Your task to perform on an android device: stop showing notifications on the lock screen Image 0: 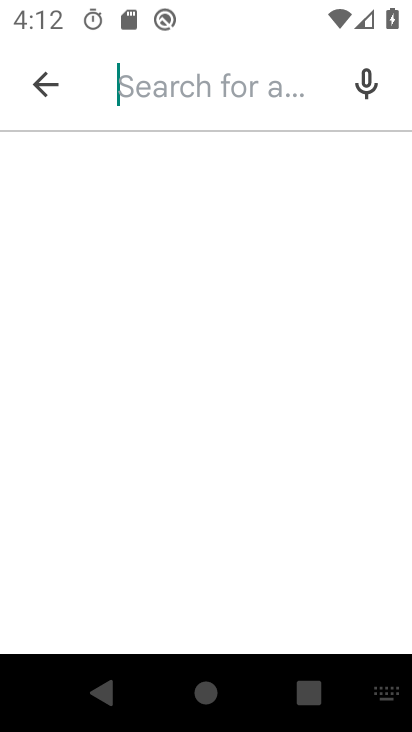
Step 0: press home button
Your task to perform on an android device: stop showing notifications on the lock screen Image 1: 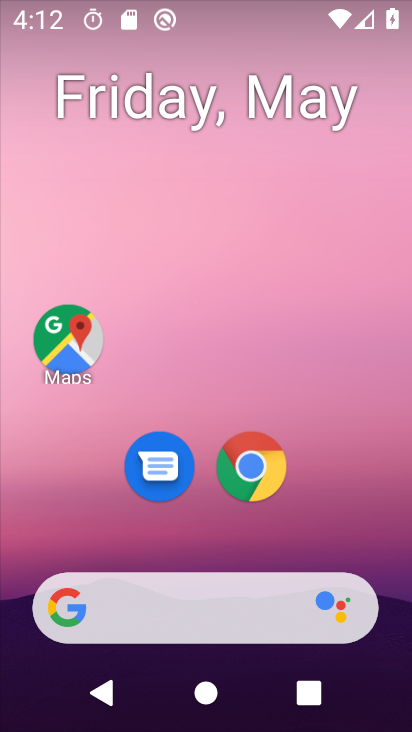
Step 1: drag from (392, 694) to (351, 196)
Your task to perform on an android device: stop showing notifications on the lock screen Image 2: 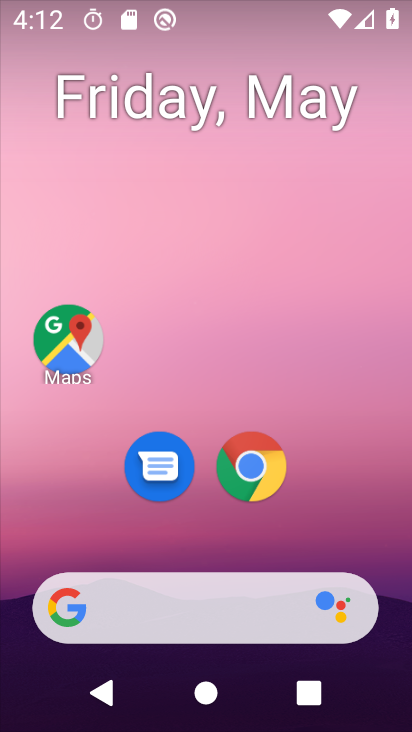
Step 2: drag from (389, 661) to (372, 166)
Your task to perform on an android device: stop showing notifications on the lock screen Image 3: 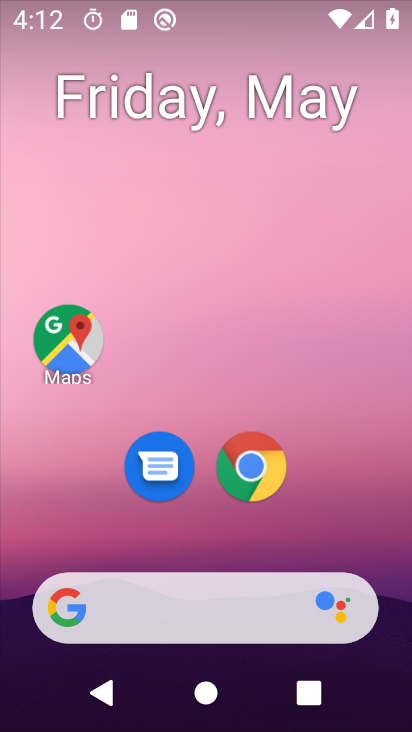
Step 3: drag from (386, 662) to (331, 229)
Your task to perform on an android device: stop showing notifications on the lock screen Image 4: 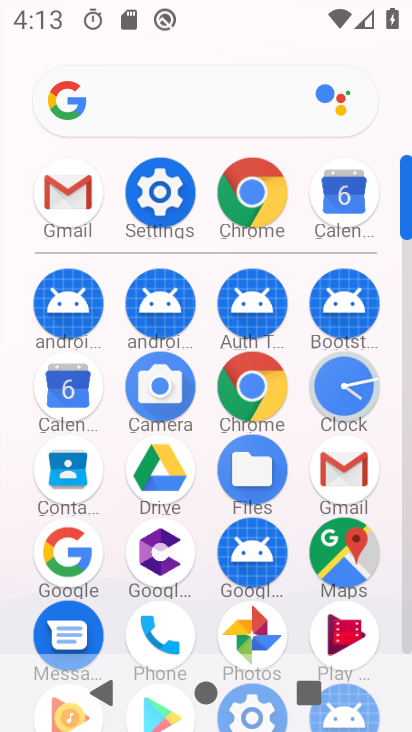
Step 4: click (171, 200)
Your task to perform on an android device: stop showing notifications on the lock screen Image 5: 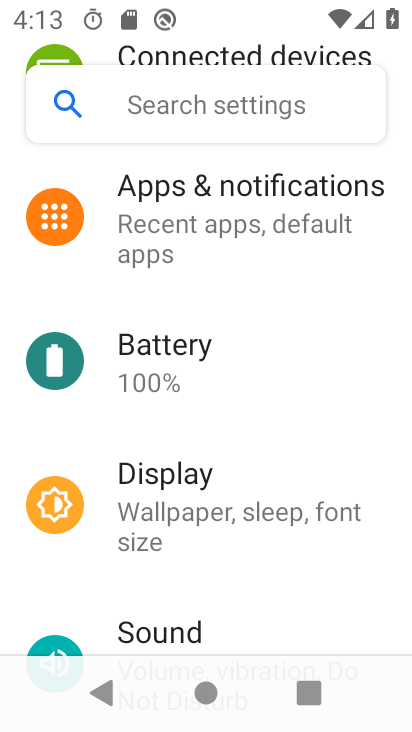
Step 5: click (159, 203)
Your task to perform on an android device: stop showing notifications on the lock screen Image 6: 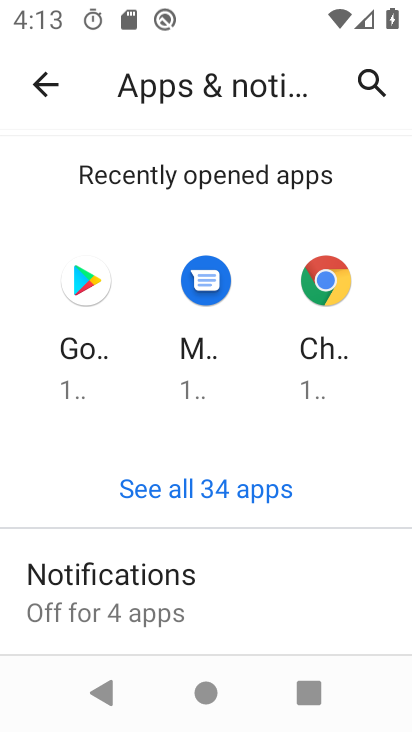
Step 6: click (119, 587)
Your task to perform on an android device: stop showing notifications on the lock screen Image 7: 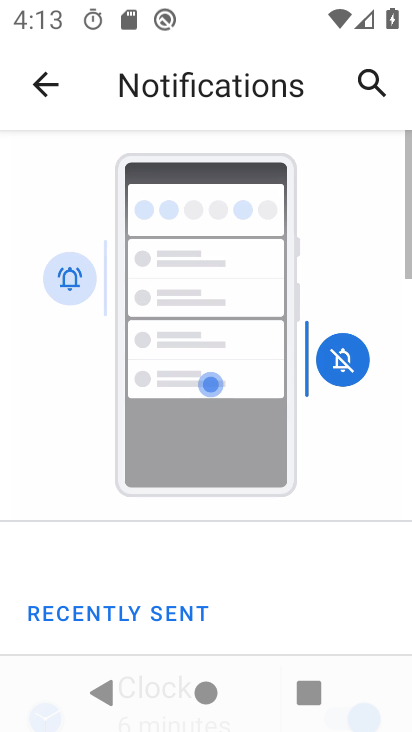
Step 7: drag from (265, 611) to (228, 291)
Your task to perform on an android device: stop showing notifications on the lock screen Image 8: 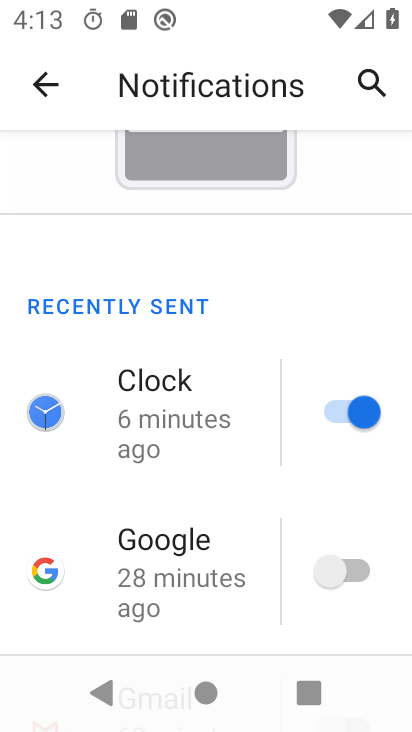
Step 8: drag from (247, 619) to (222, 265)
Your task to perform on an android device: stop showing notifications on the lock screen Image 9: 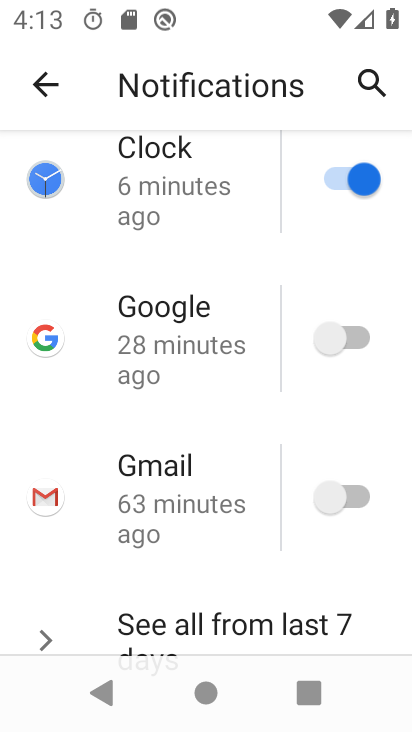
Step 9: drag from (230, 610) to (225, 222)
Your task to perform on an android device: stop showing notifications on the lock screen Image 10: 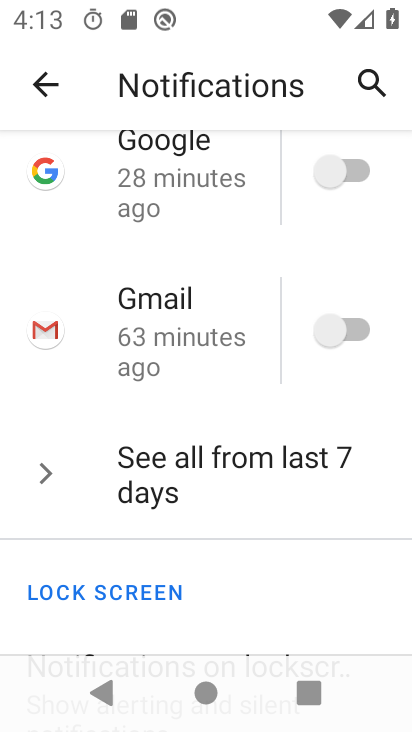
Step 10: drag from (222, 475) to (213, 263)
Your task to perform on an android device: stop showing notifications on the lock screen Image 11: 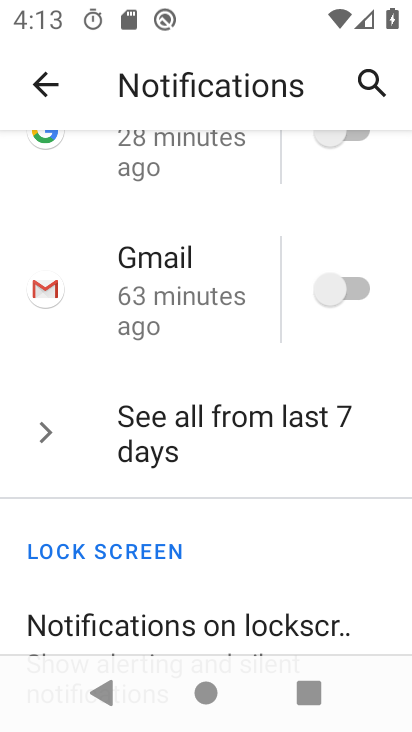
Step 11: click (103, 619)
Your task to perform on an android device: stop showing notifications on the lock screen Image 12: 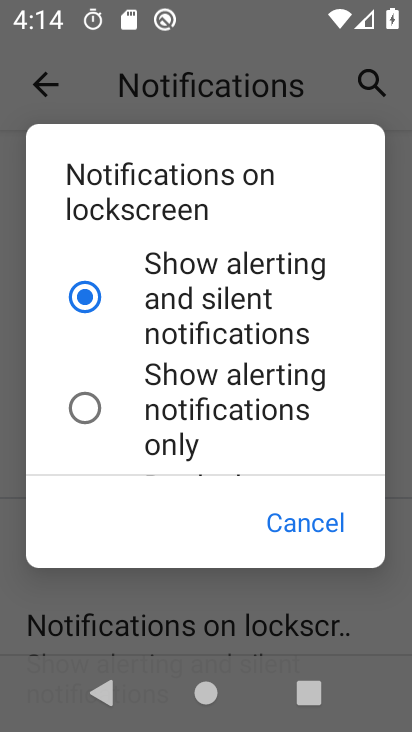
Step 12: drag from (182, 455) to (206, 208)
Your task to perform on an android device: stop showing notifications on the lock screen Image 13: 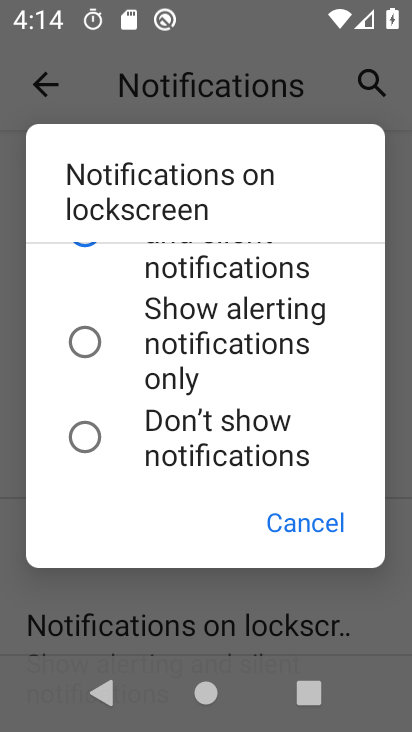
Step 13: click (92, 440)
Your task to perform on an android device: stop showing notifications on the lock screen Image 14: 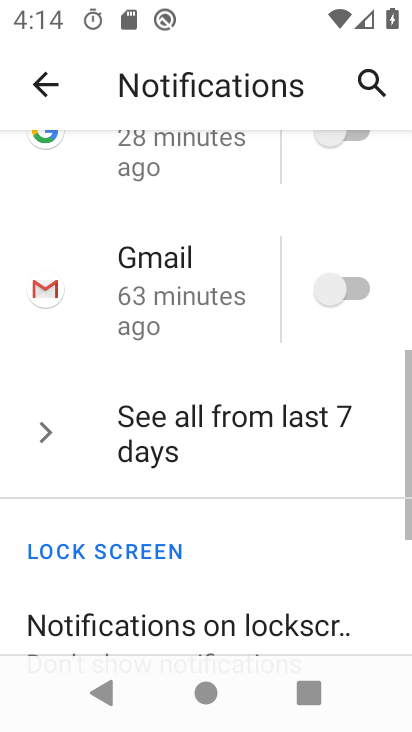
Step 14: task complete